Your task to perform on an android device: What's on my calendar tomorrow? Image 0: 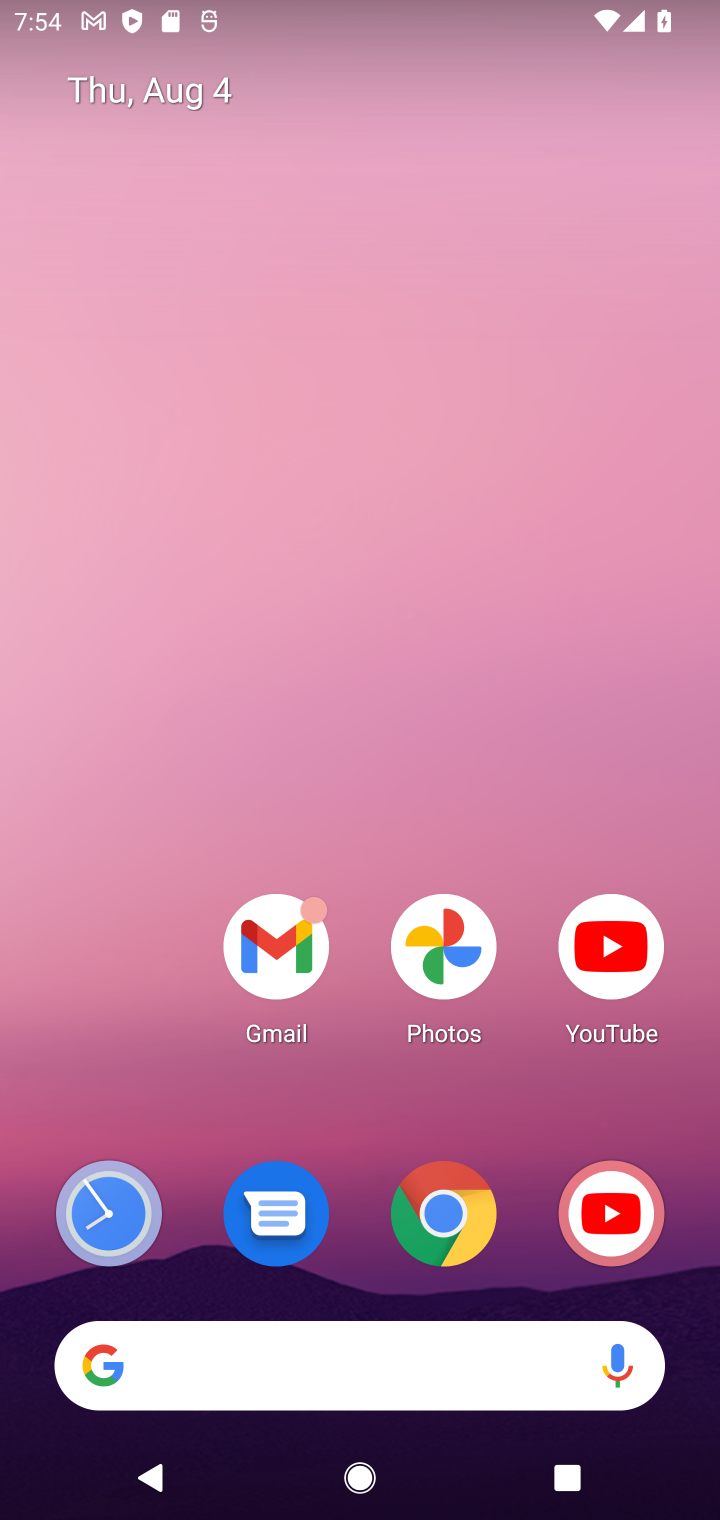
Step 0: task complete